Your task to perform on an android device: show emergency info Image 0: 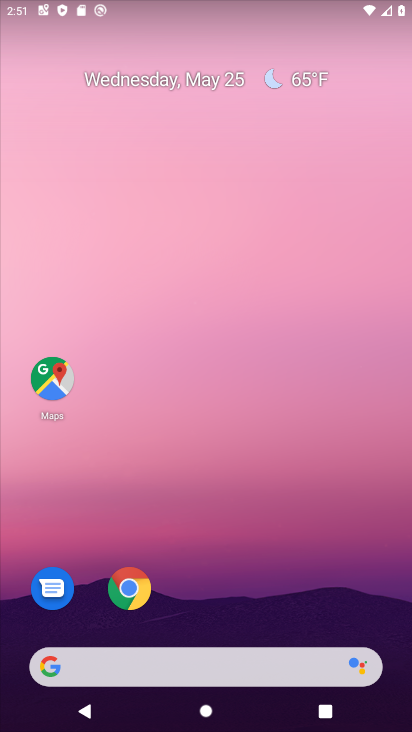
Step 0: drag from (218, 595) to (252, 166)
Your task to perform on an android device: show emergency info Image 1: 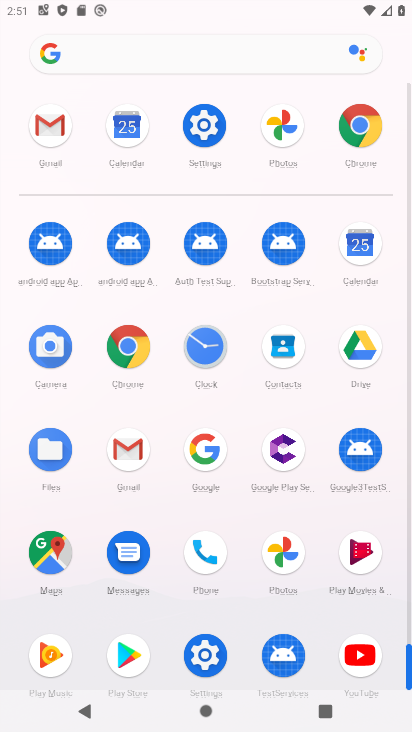
Step 1: click (210, 115)
Your task to perform on an android device: show emergency info Image 2: 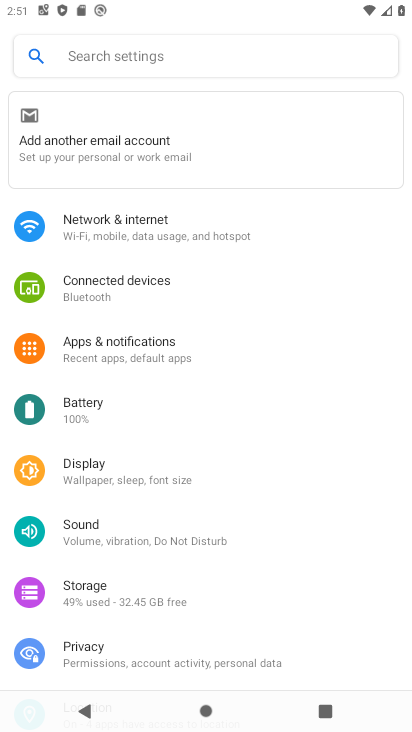
Step 2: drag from (202, 587) to (284, 130)
Your task to perform on an android device: show emergency info Image 3: 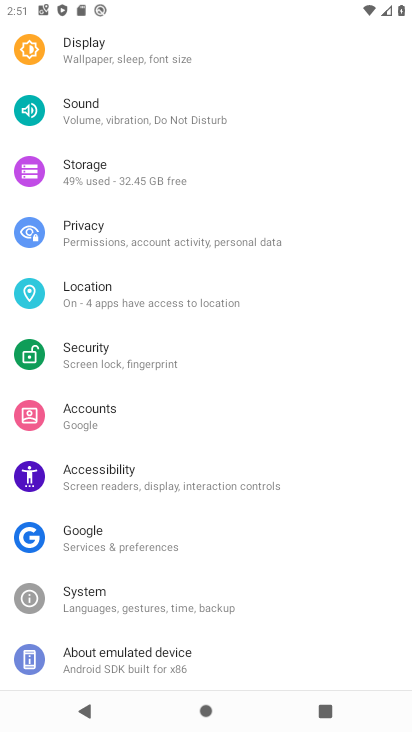
Step 3: drag from (221, 627) to (306, 182)
Your task to perform on an android device: show emergency info Image 4: 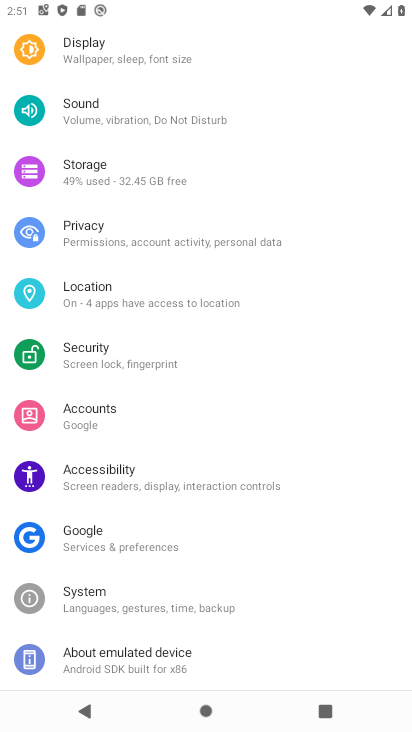
Step 4: click (97, 653)
Your task to perform on an android device: show emergency info Image 5: 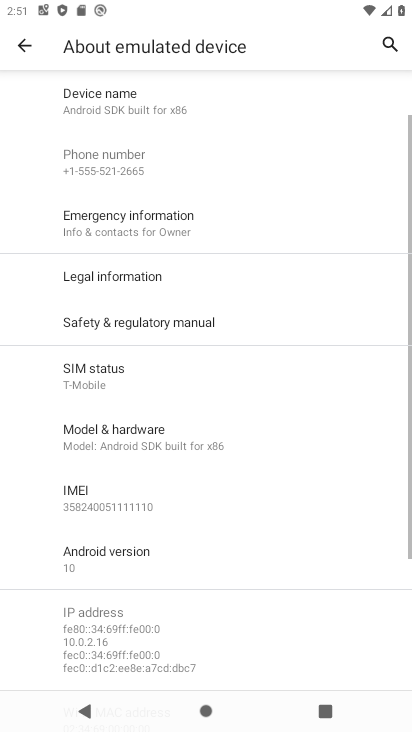
Step 5: click (127, 236)
Your task to perform on an android device: show emergency info Image 6: 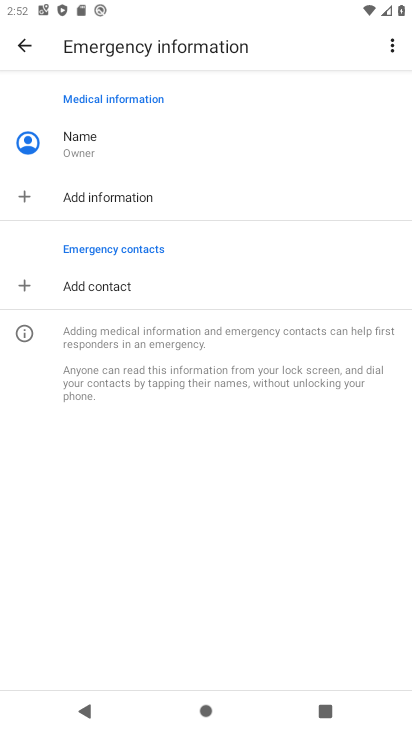
Step 6: task complete